Your task to perform on an android device: show emergency info Image 0: 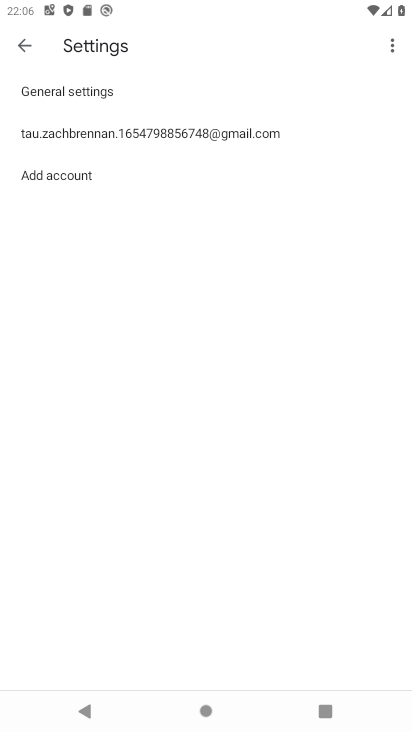
Step 0: press home button
Your task to perform on an android device: show emergency info Image 1: 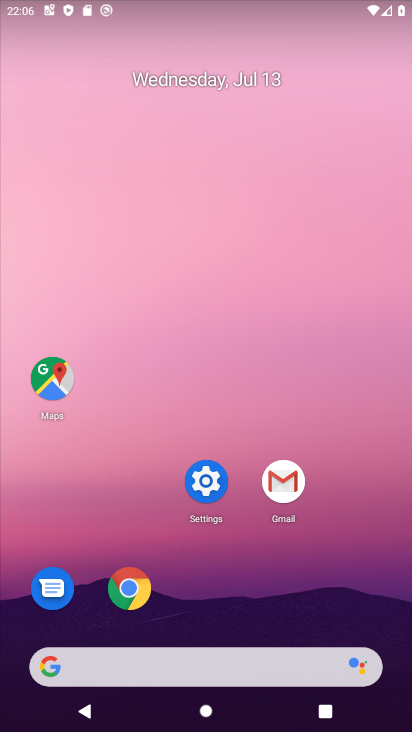
Step 1: click (210, 463)
Your task to perform on an android device: show emergency info Image 2: 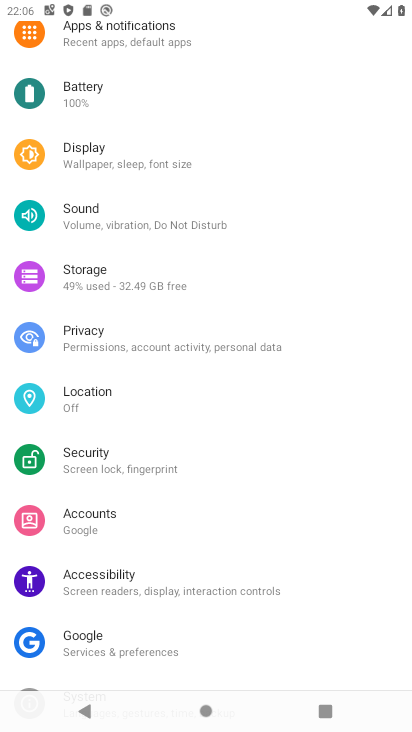
Step 2: drag from (260, 563) to (264, 213)
Your task to perform on an android device: show emergency info Image 3: 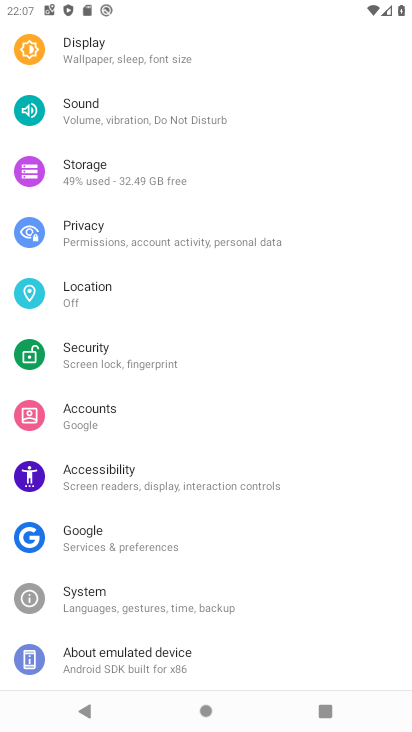
Step 3: click (67, 648)
Your task to perform on an android device: show emergency info Image 4: 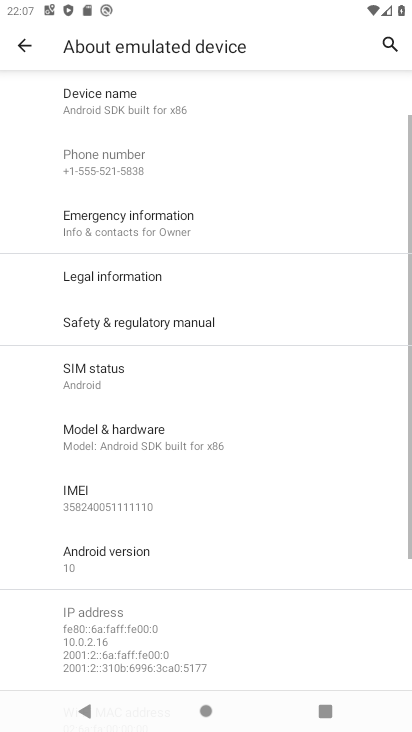
Step 4: click (105, 218)
Your task to perform on an android device: show emergency info Image 5: 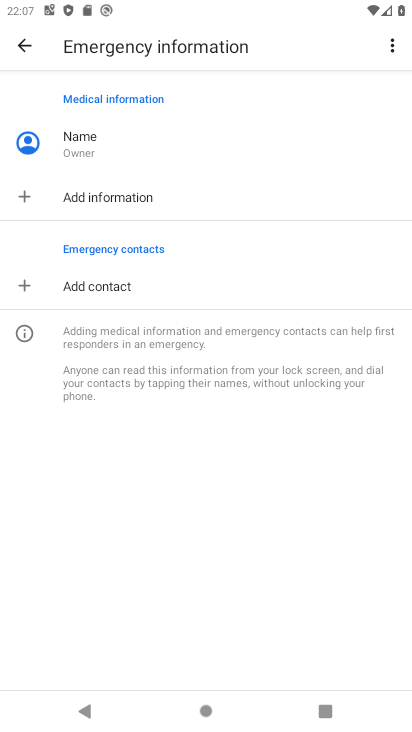
Step 5: task complete